Your task to perform on an android device: turn vacation reply on in the gmail app Image 0: 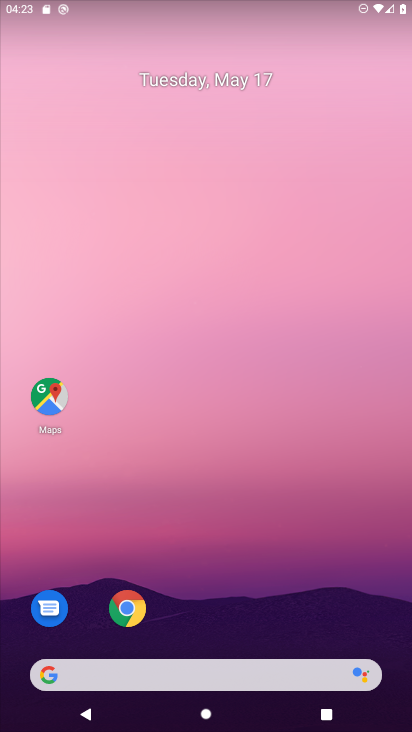
Step 0: drag from (258, 658) to (336, 351)
Your task to perform on an android device: turn vacation reply on in the gmail app Image 1: 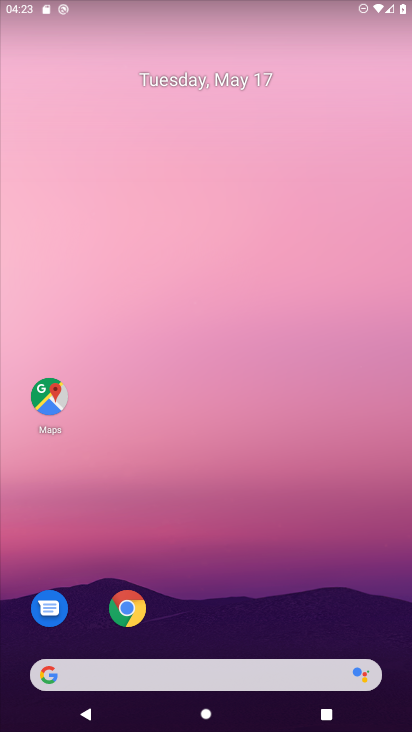
Step 1: drag from (224, 652) to (284, 233)
Your task to perform on an android device: turn vacation reply on in the gmail app Image 2: 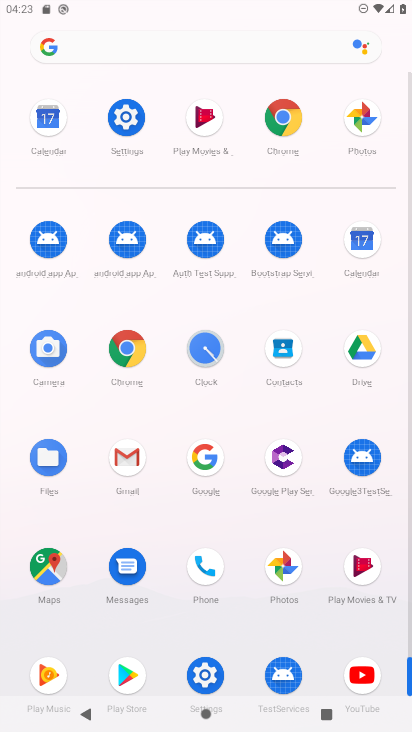
Step 2: click (127, 451)
Your task to perform on an android device: turn vacation reply on in the gmail app Image 3: 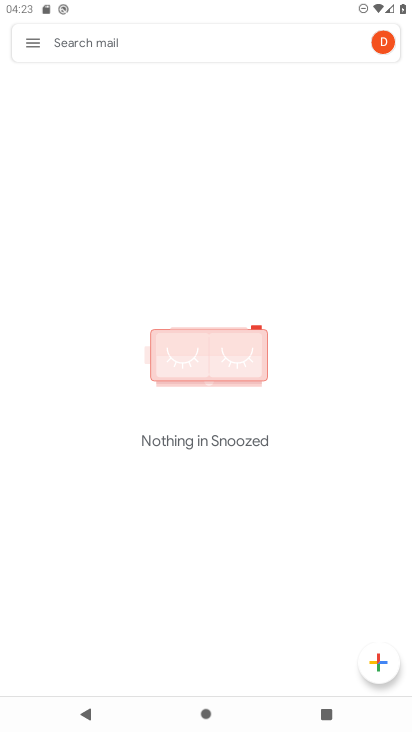
Step 3: click (34, 44)
Your task to perform on an android device: turn vacation reply on in the gmail app Image 4: 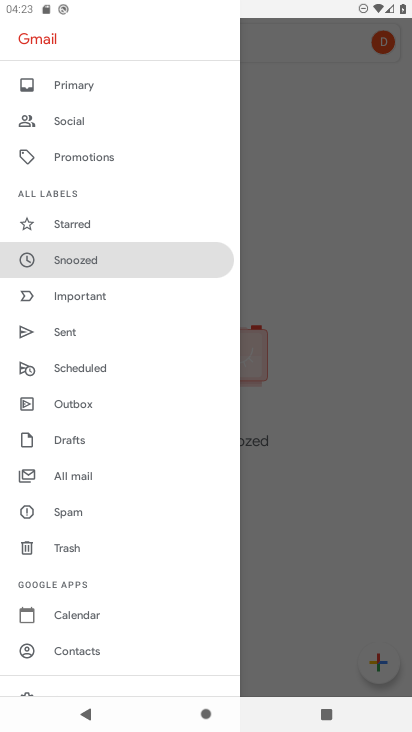
Step 4: click (344, 558)
Your task to perform on an android device: turn vacation reply on in the gmail app Image 5: 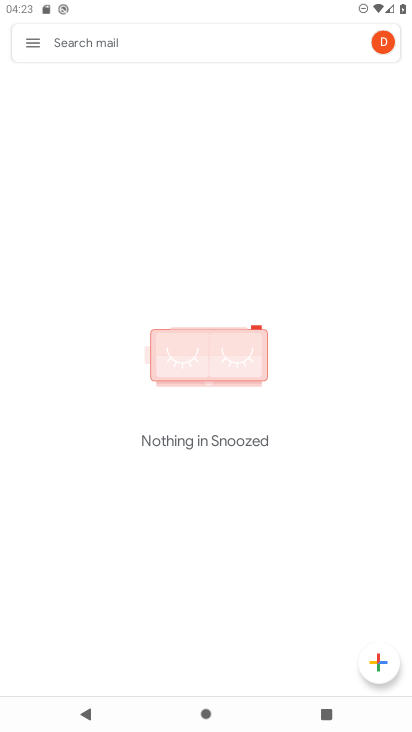
Step 5: click (42, 42)
Your task to perform on an android device: turn vacation reply on in the gmail app Image 6: 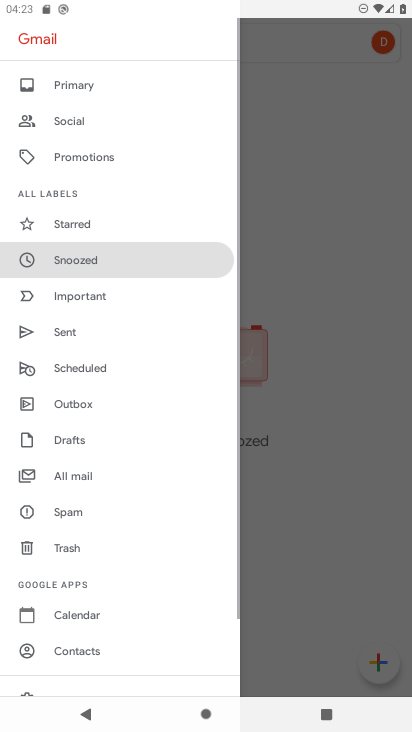
Step 6: drag from (89, 617) to (89, 253)
Your task to perform on an android device: turn vacation reply on in the gmail app Image 7: 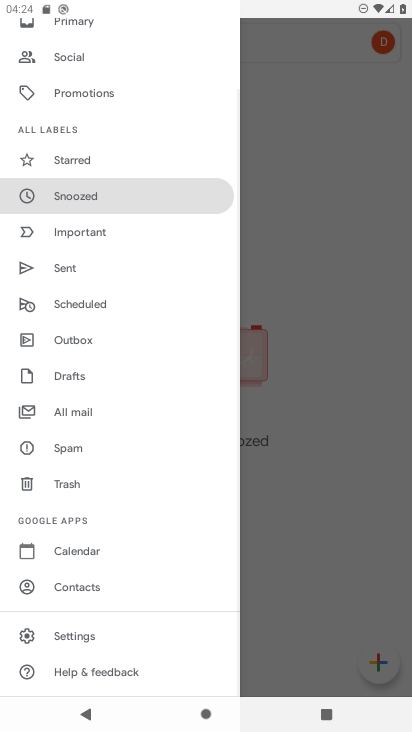
Step 7: click (67, 638)
Your task to perform on an android device: turn vacation reply on in the gmail app Image 8: 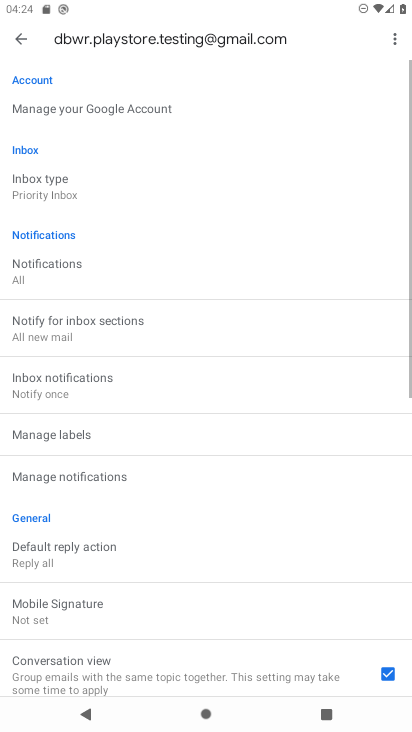
Step 8: drag from (120, 687) to (193, 361)
Your task to perform on an android device: turn vacation reply on in the gmail app Image 9: 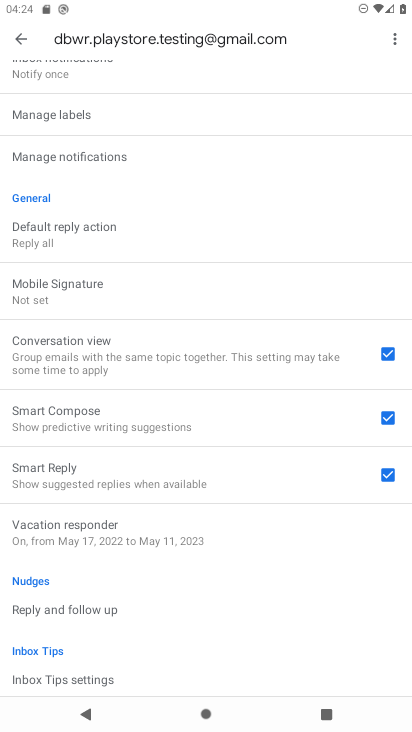
Step 9: click (112, 531)
Your task to perform on an android device: turn vacation reply on in the gmail app Image 10: 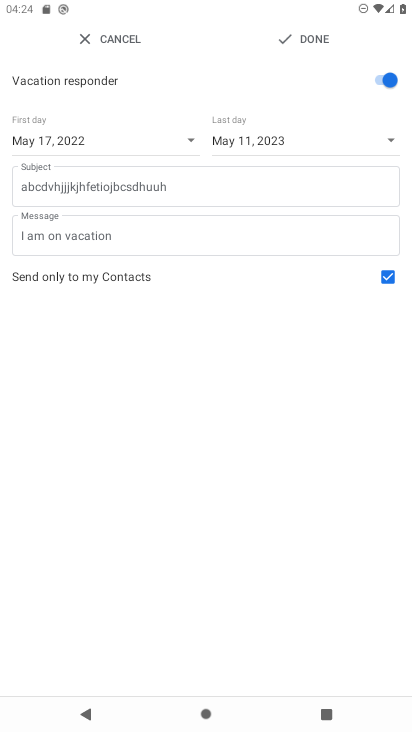
Step 10: click (327, 39)
Your task to perform on an android device: turn vacation reply on in the gmail app Image 11: 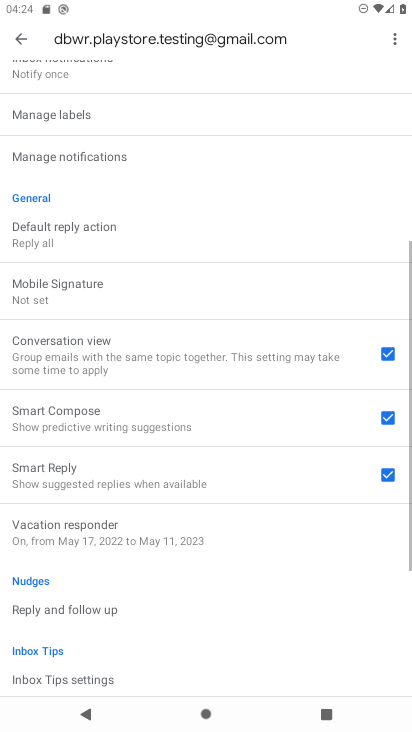
Step 11: task complete